Your task to perform on an android device: Go to Yahoo.com Image 0: 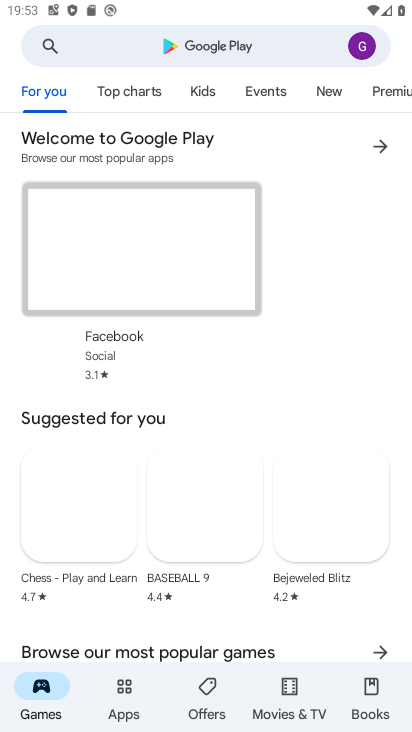
Step 0: press home button
Your task to perform on an android device: Go to Yahoo.com Image 1: 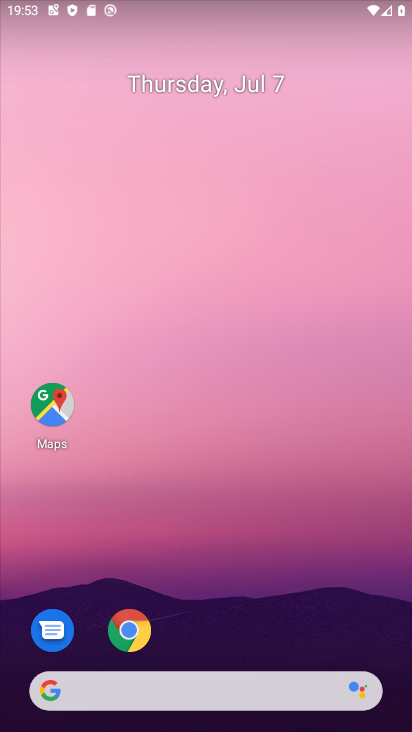
Step 1: click (118, 628)
Your task to perform on an android device: Go to Yahoo.com Image 2: 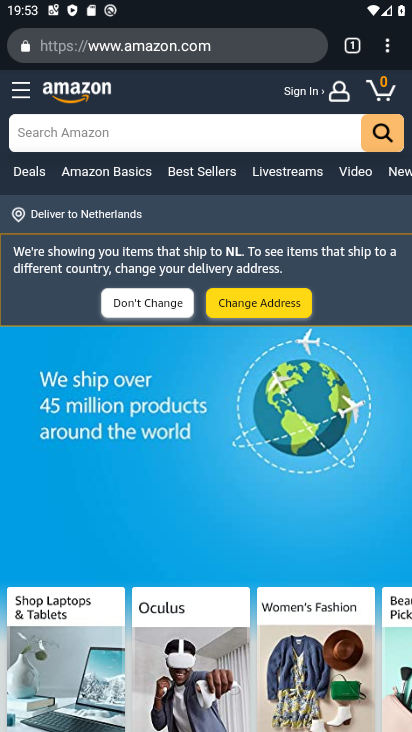
Step 2: click (217, 51)
Your task to perform on an android device: Go to Yahoo.com Image 3: 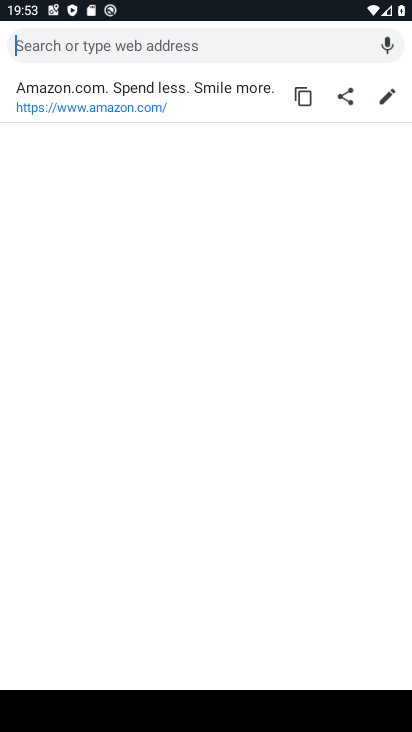
Step 3: type "Yahoo.com"
Your task to perform on an android device: Go to Yahoo.com Image 4: 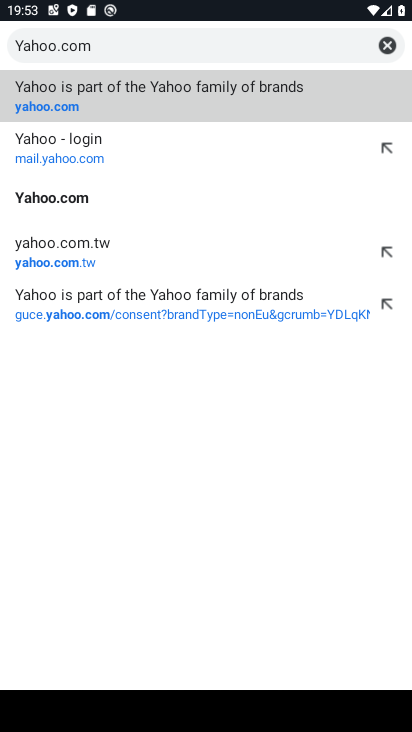
Step 4: click (93, 104)
Your task to perform on an android device: Go to Yahoo.com Image 5: 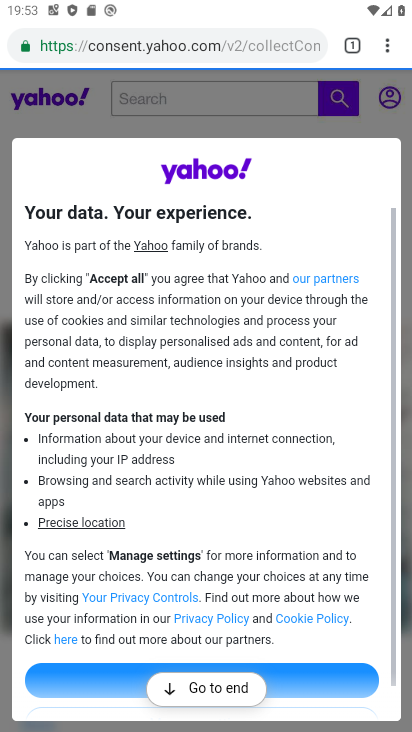
Step 5: click (221, 679)
Your task to perform on an android device: Go to Yahoo.com Image 6: 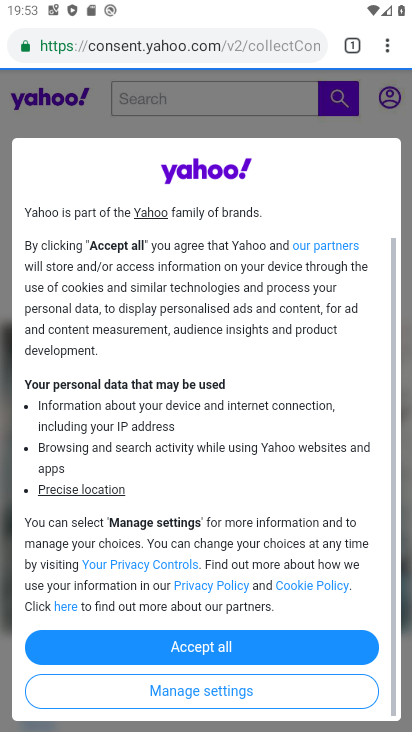
Step 6: task complete